Your task to perform on an android device: See recent photos Image 0: 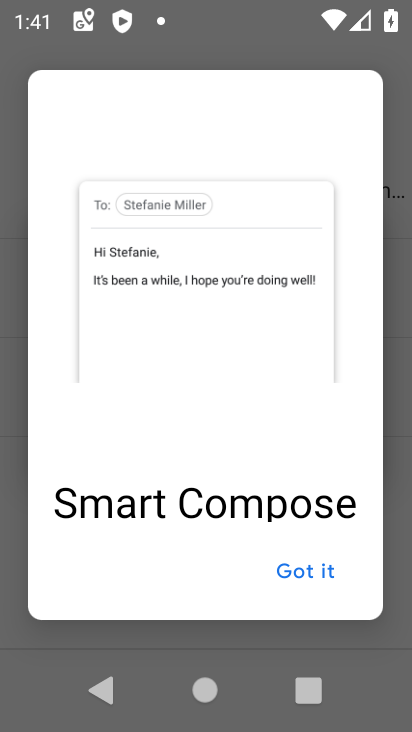
Step 0: click (323, 574)
Your task to perform on an android device: See recent photos Image 1: 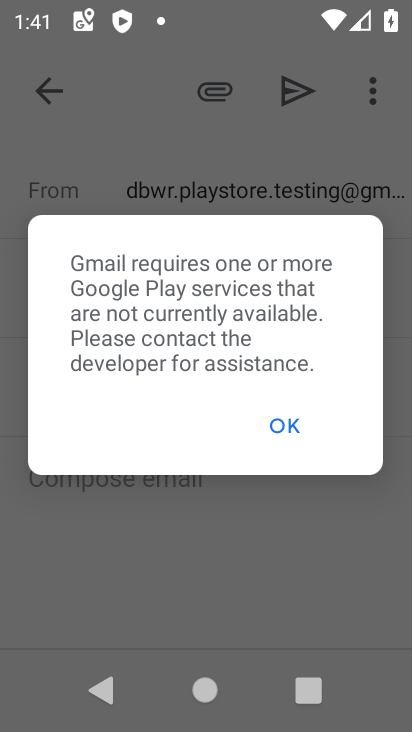
Step 1: click (289, 434)
Your task to perform on an android device: See recent photos Image 2: 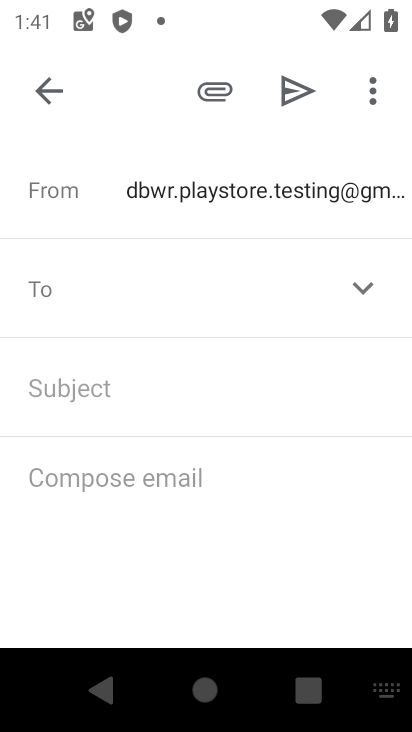
Step 2: press home button
Your task to perform on an android device: See recent photos Image 3: 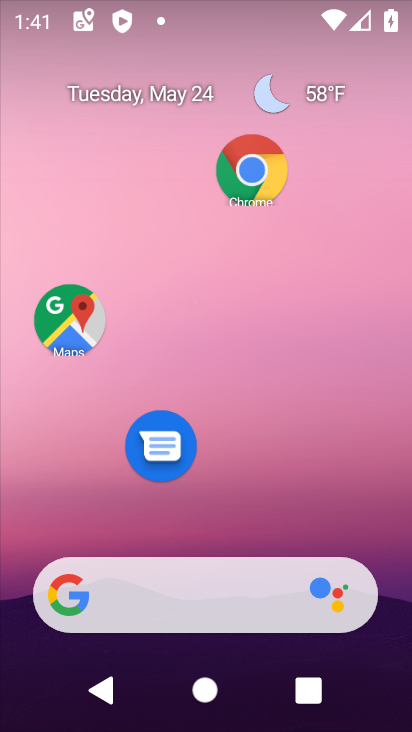
Step 3: drag from (266, 636) to (240, 177)
Your task to perform on an android device: See recent photos Image 4: 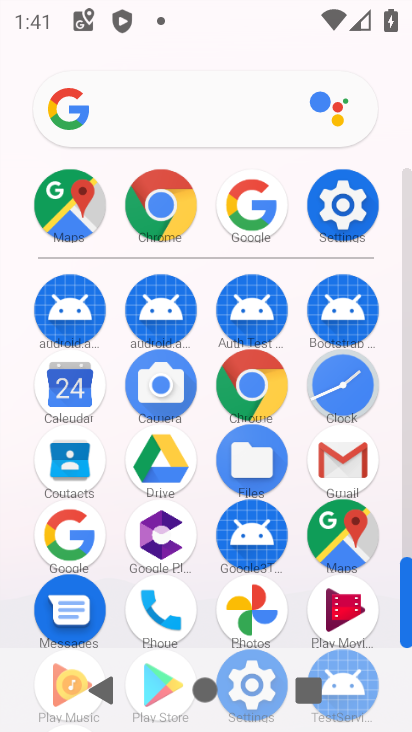
Step 4: click (247, 617)
Your task to perform on an android device: See recent photos Image 5: 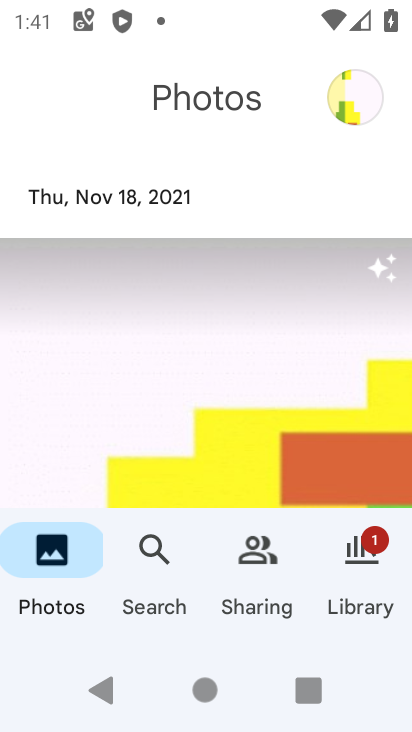
Step 5: task complete